Your task to perform on an android device: turn off smart reply in the gmail app Image 0: 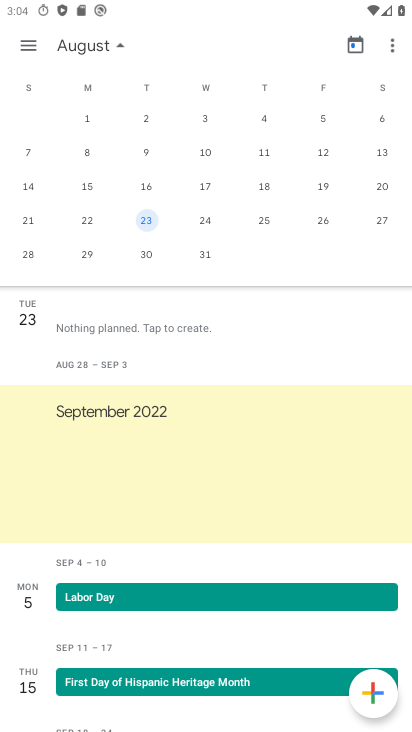
Step 0: press back button
Your task to perform on an android device: turn off smart reply in the gmail app Image 1: 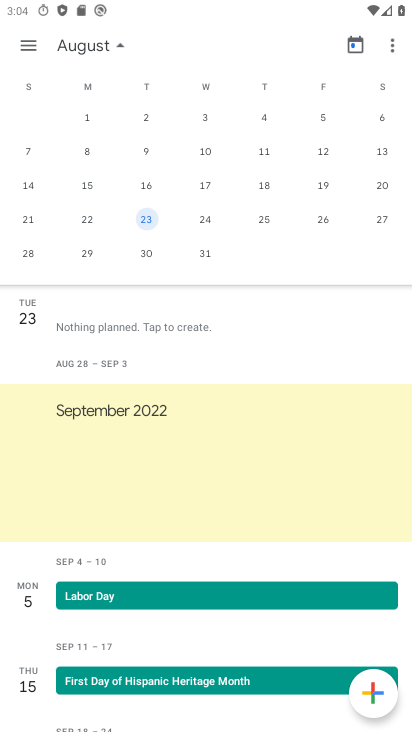
Step 1: press back button
Your task to perform on an android device: turn off smart reply in the gmail app Image 2: 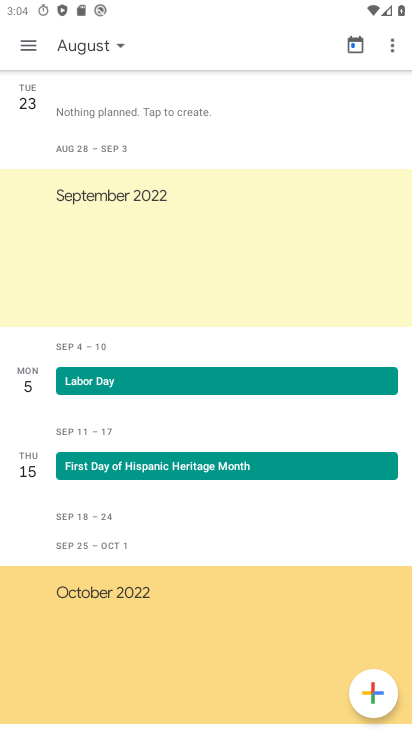
Step 2: press back button
Your task to perform on an android device: turn off smart reply in the gmail app Image 3: 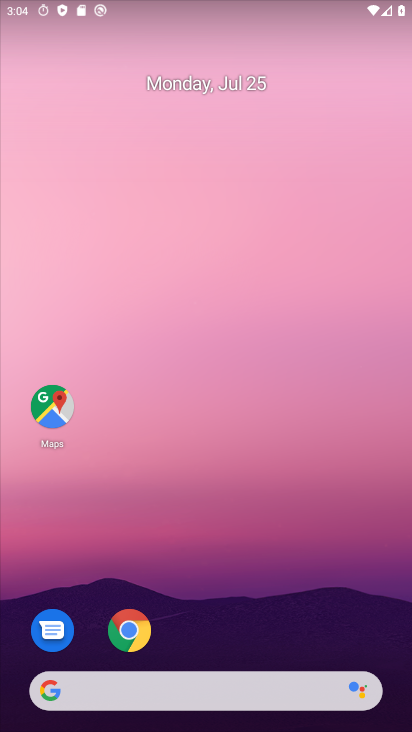
Step 3: drag from (253, 537) to (271, 68)
Your task to perform on an android device: turn off smart reply in the gmail app Image 4: 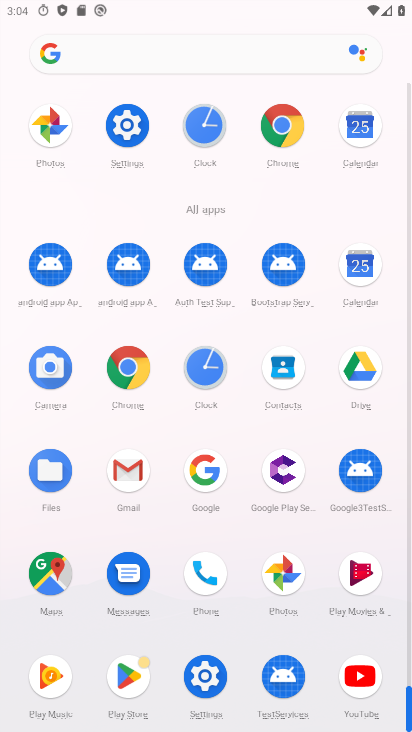
Step 4: click (126, 120)
Your task to perform on an android device: turn off smart reply in the gmail app Image 5: 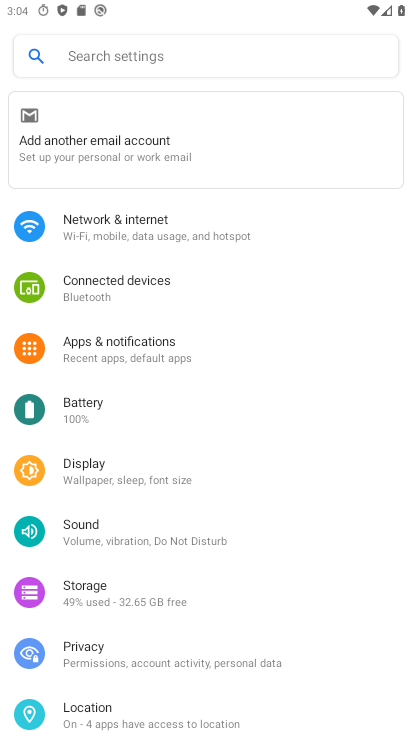
Step 5: drag from (149, 604) to (153, 92)
Your task to perform on an android device: turn off smart reply in the gmail app Image 6: 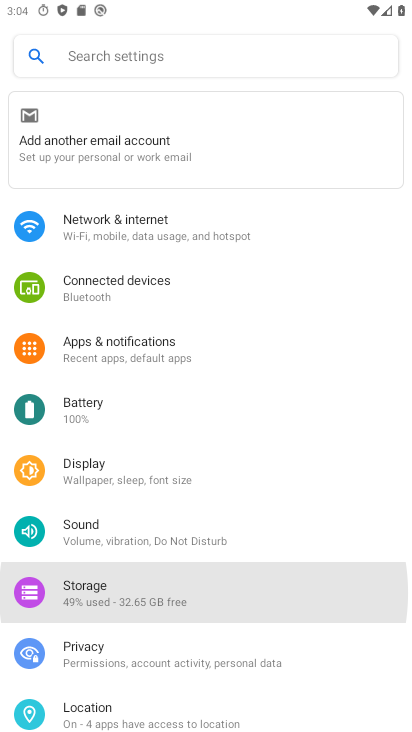
Step 6: drag from (212, 497) to (196, 122)
Your task to perform on an android device: turn off smart reply in the gmail app Image 7: 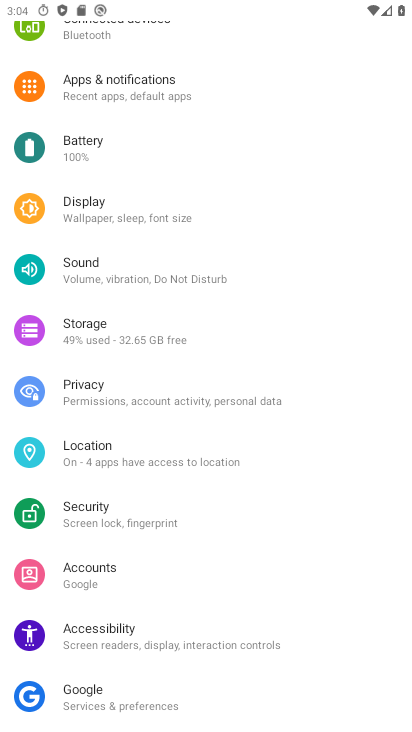
Step 7: press back button
Your task to perform on an android device: turn off smart reply in the gmail app Image 8: 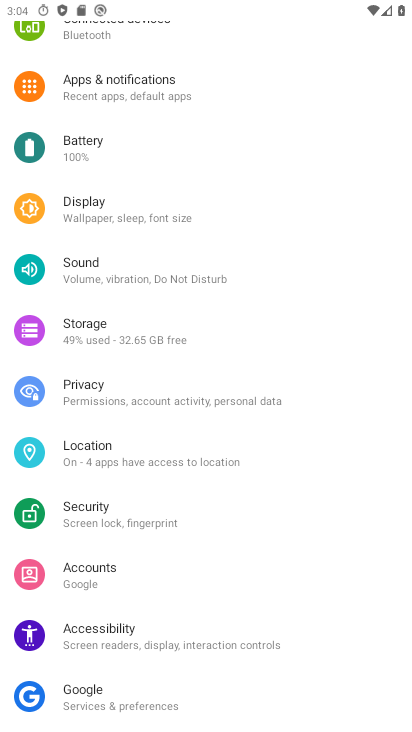
Step 8: press home button
Your task to perform on an android device: turn off smart reply in the gmail app Image 9: 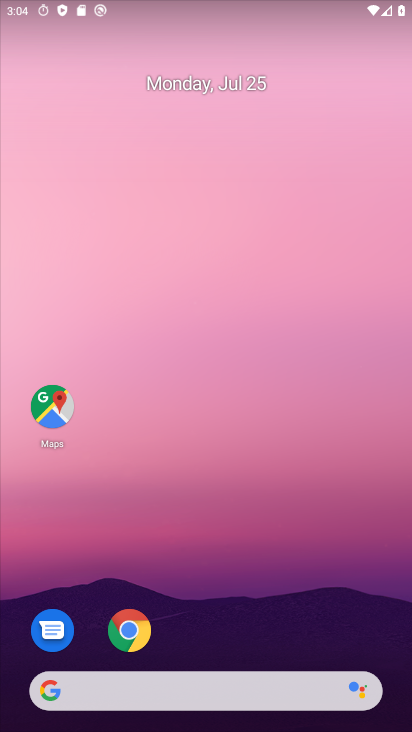
Step 9: drag from (280, 658) to (282, 221)
Your task to perform on an android device: turn off smart reply in the gmail app Image 10: 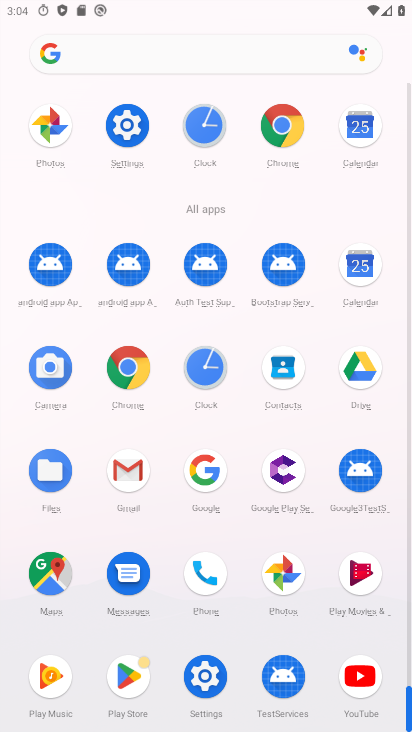
Step 10: click (132, 463)
Your task to perform on an android device: turn off smart reply in the gmail app Image 11: 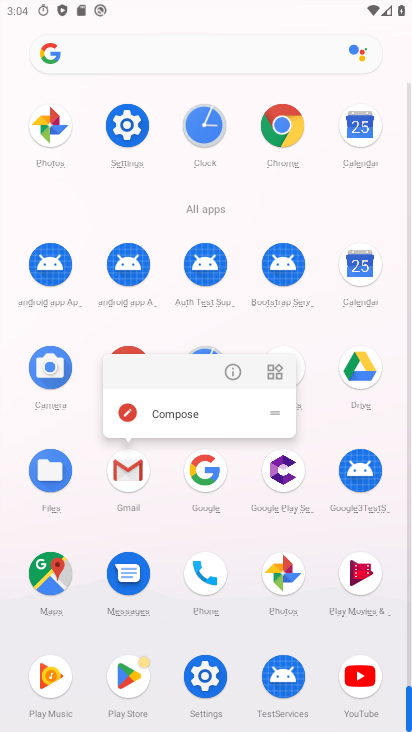
Step 11: click (135, 457)
Your task to perform on an android device: turn off smart reply in the gmail app Image 12: 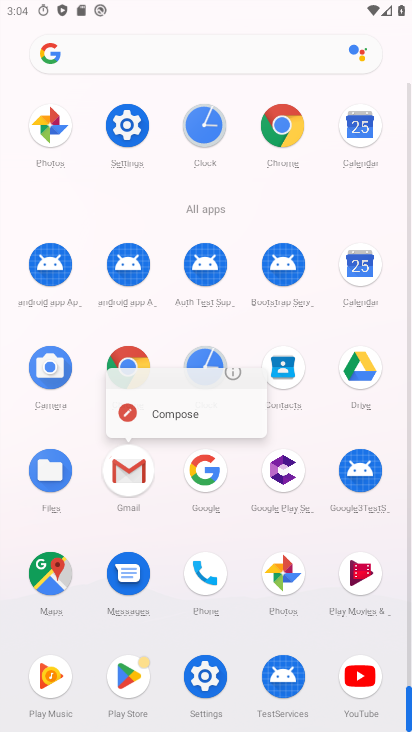
Step 12: click (135, 462)
Your task to perform on an android device: turn off smart reply in the gmail app Image 13: 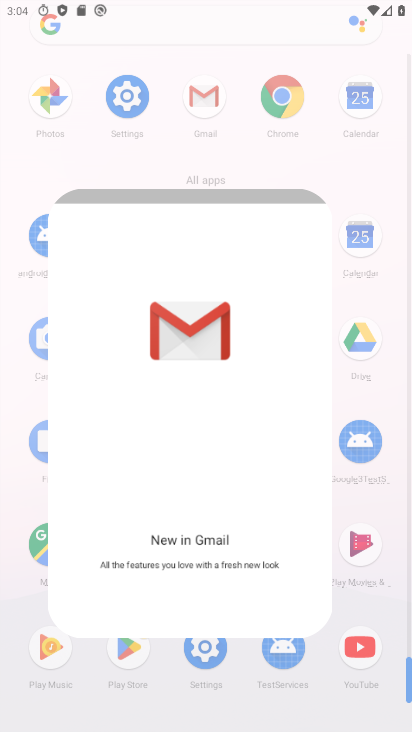
Step 13: click (136, 466)
Your task to perform on an android device: turn off smart reply in the gmail app Image 14: 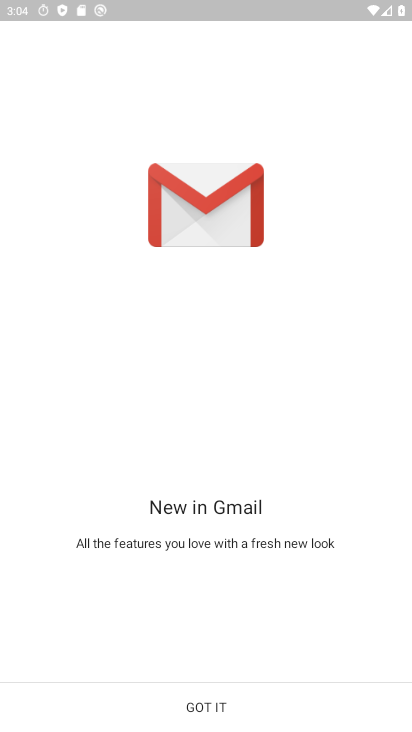
Step 14: click (140, 464)
Your task to perform on an android device: turn off smart reply in the gmail app Image 15: 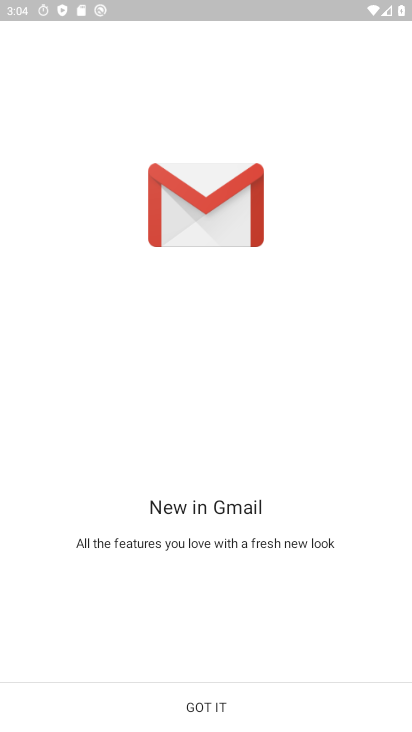
Step 15: click (216, 702)
Your task to perform on an android device: turn off smart reply in the gmail app Image 16: 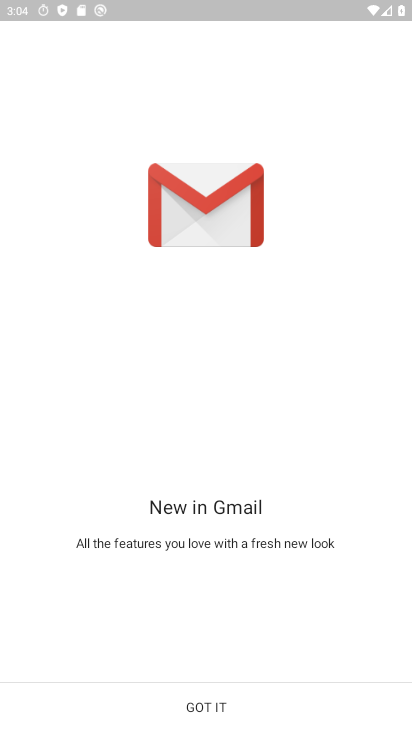
Step 16: click (216, 702)
Your task to perform on an android device: turn off smart reply in the gmail app Image 17: 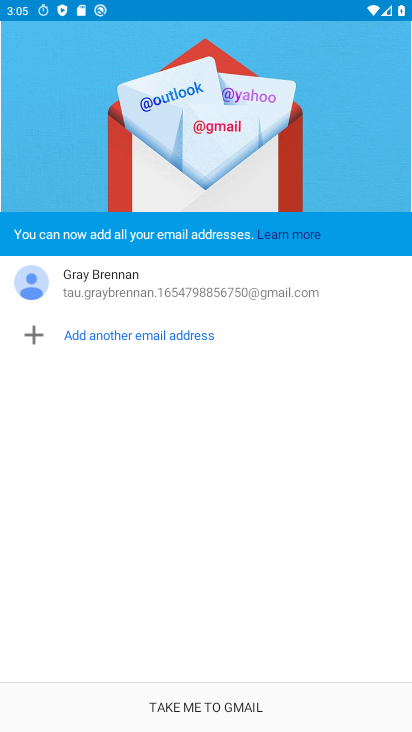
Step 17: click (213, 701)
Your task to perform on an android device: turn off smart reply in the gmail app Image 18: 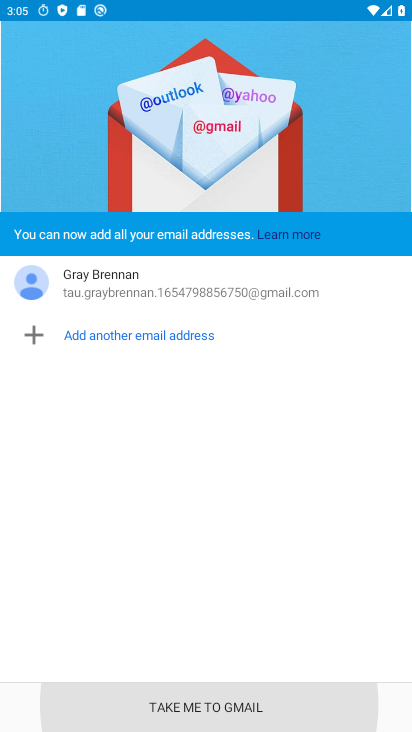
Step 18: click (213, 701)
Your task to perform on an android device: turn off smart reply in the gmail app Image 19: 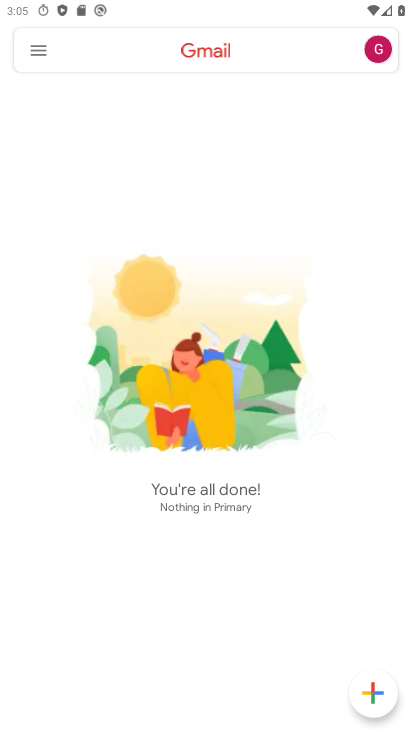
Step 19: click (42, 48)
Your task to perform on an android device: turn off smart reply in the gmail app Image 20: 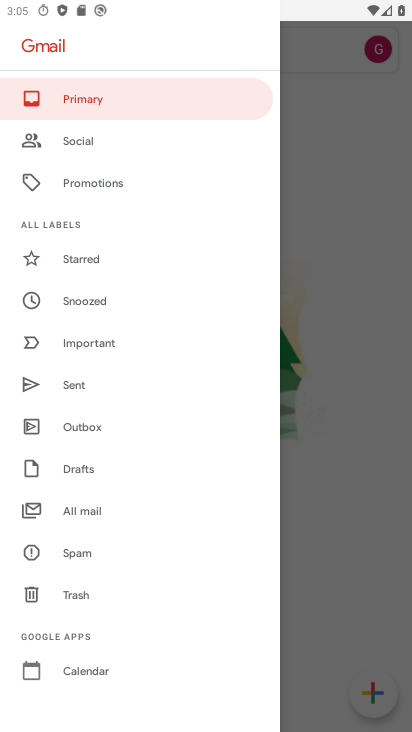
Step 20: drag from (137, 676) to (88, 295)
Your task to perform on an android device: turn off smart reply in the gmail app Image 21: 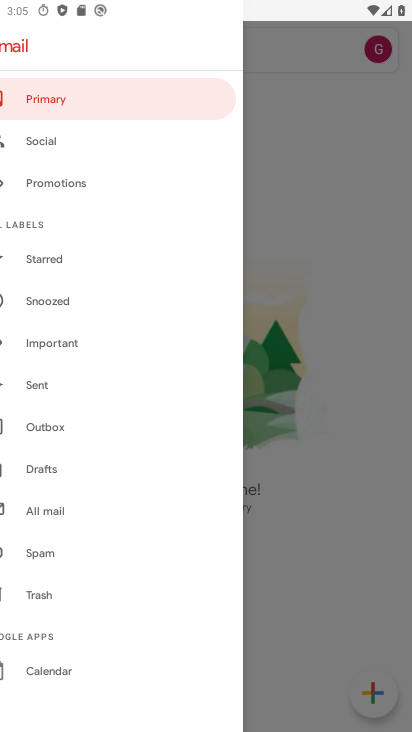
Step 21: drag from (113, 533) to (144, 222)
Your task to perform on an android device: turn off smart reply in the gmail app Image 22: 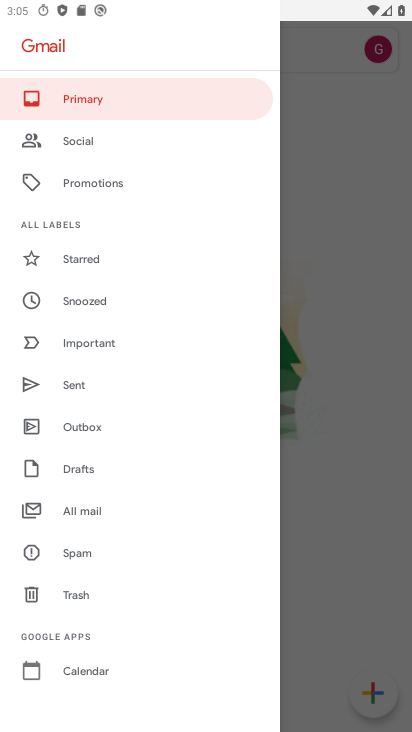
Step 22: drag from (71, 595) to (79, 237)
Your task to perform on an android device: turn off smart reply in the gmail app Image 23: 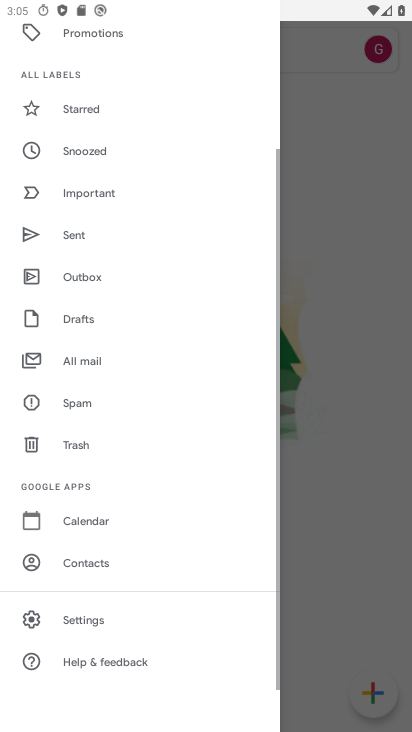
Step 23: drag from (82, 642) to (119, 209)
Your task to perform on an android device: turn off smart reply in the gmail app Image 24: 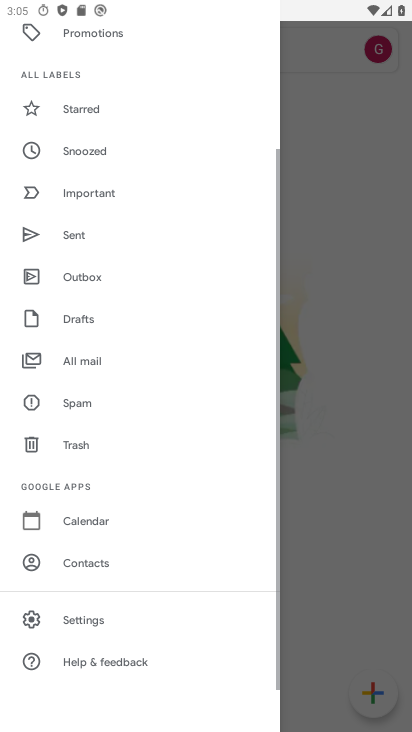
Step 24: click (75, 608)
Your task to perform on an android device: turn off smart reply in the gmail app Image 25: 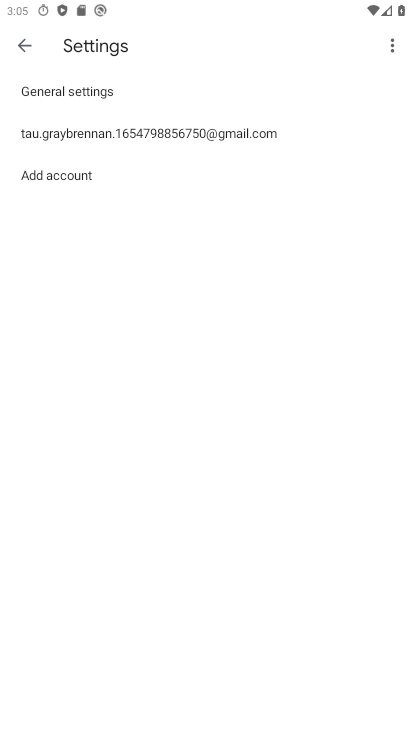
Step 25: click (85, 136)
Your task to perform on an android device: turn off smart reply in the gmail app Image 26: 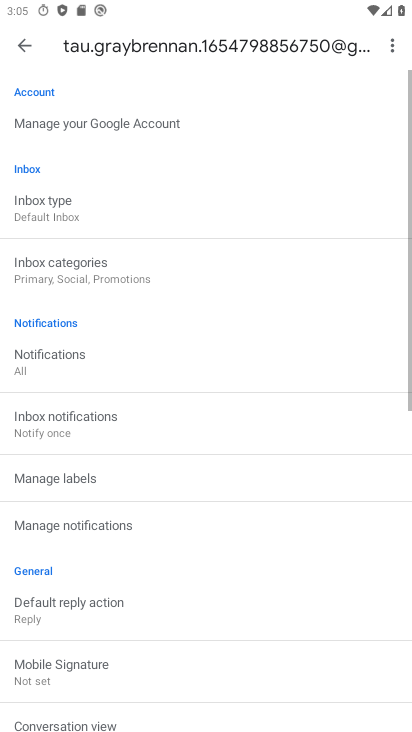
Step 26: click (82, 127)
Your task to perform on an android device: turn off smart reply in the gmail app Image 27: 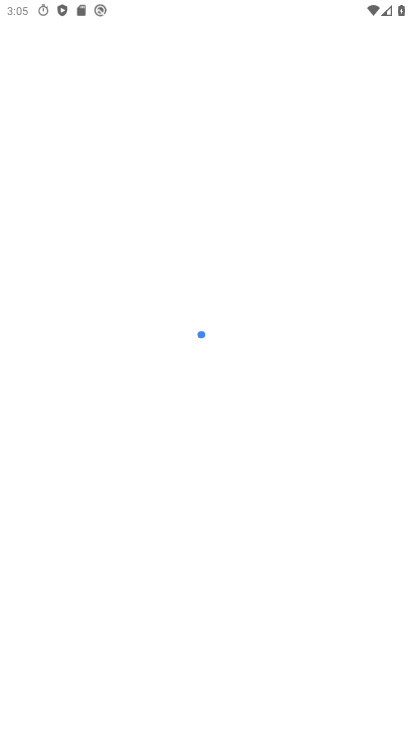
Step 27: press back button
Your task to perform on an android device: turn off smart reply in the gmail app Image 28: 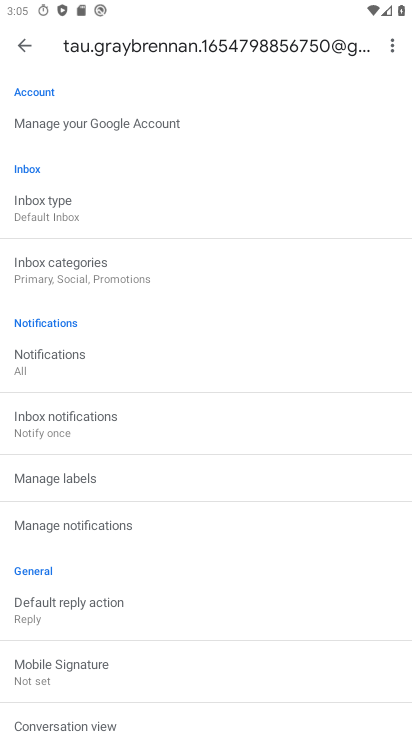
Step 28: drag from (79, 227) to (106, 63)
Your task to perform on an android device: turn off smart reply in the gmail app Image 29: 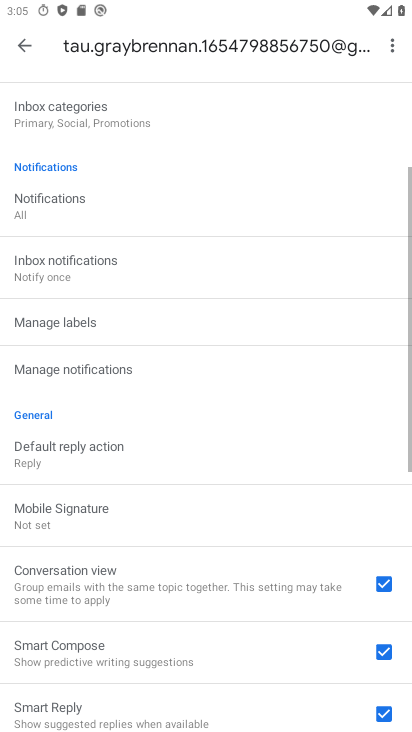
Step 29: drag from (125, 412) to (142, 157)
Your task to perform on an android device: turn off smart reply in the gmail app Image 30: 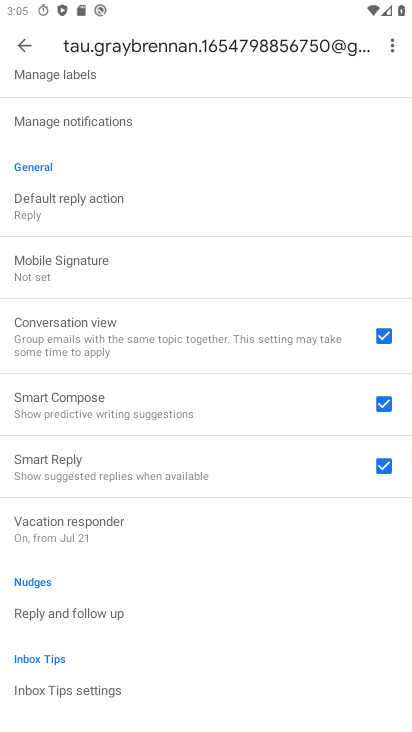
Step 30: click (382, 466)
Your task to perform on an android device: turn off smart reply in the gmail app Image 31: 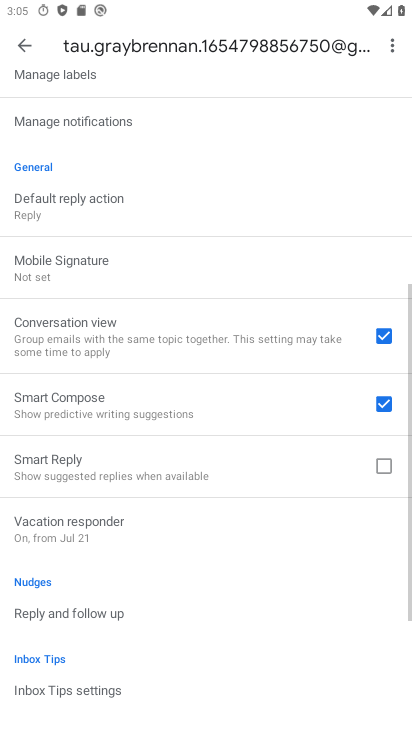
Step 31: task complete